Your task to perform on an android device: see tabs open on other devices in the chrome app Image 0: 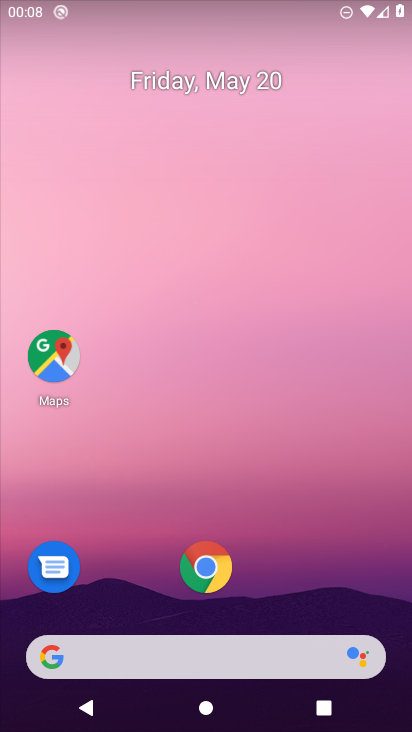
Step 0: click (204, 560)
Your task to perform on an android device: see tabs open on other devices in the chrome app Image 1: 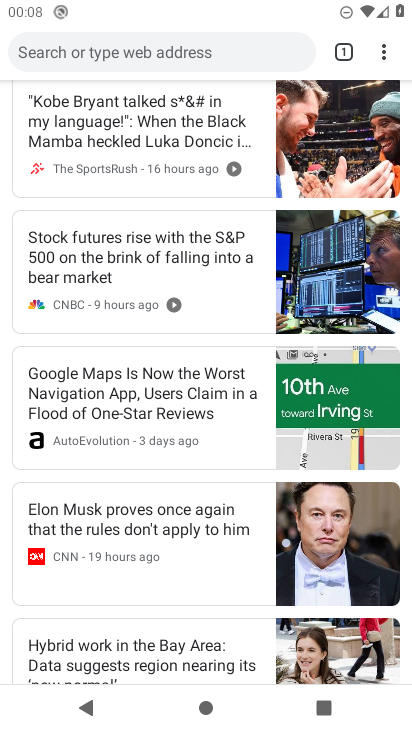
Step 1: click (393, 51)
Your task to perform on an android device: see tabs open on other devices in the chrome app Image 2: 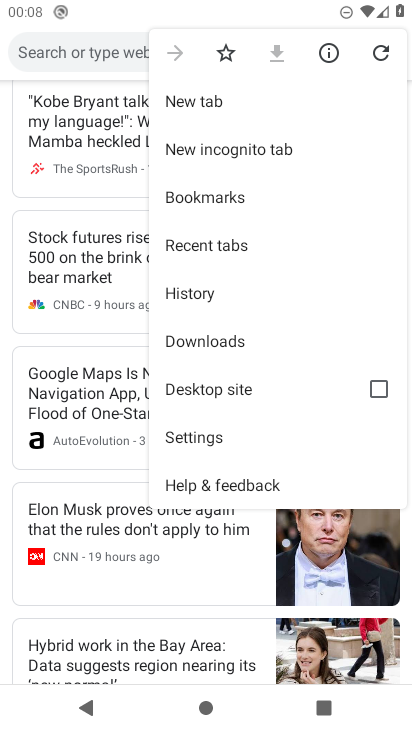
Step 2: click (257, 246)
Your task to perform on an android device: see tabs open on other devices in the chrome app Image 3: 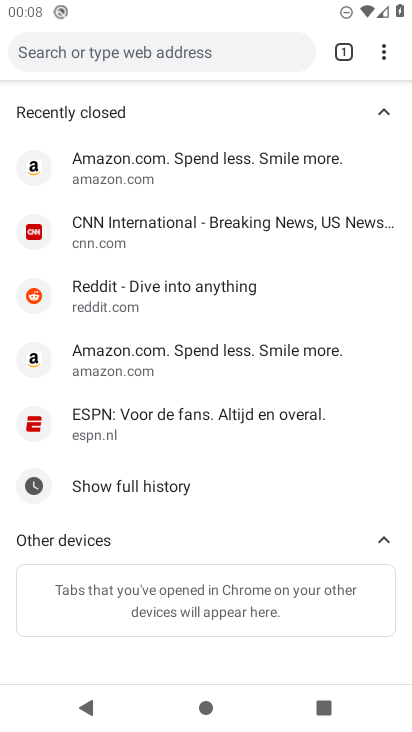
Step 3: task complete